Your task to perform on an android device: open chrome and create a bookmark for the current page Image 0: 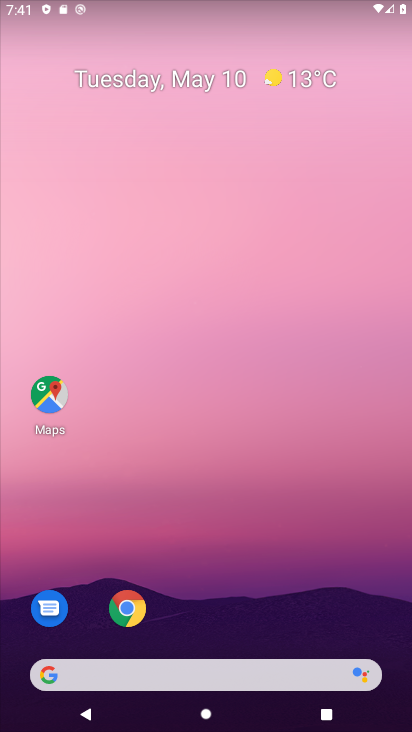
Step 0: press home button
Your task to perform on an android device: open chrome and create a bookmark for the current page Image 1: 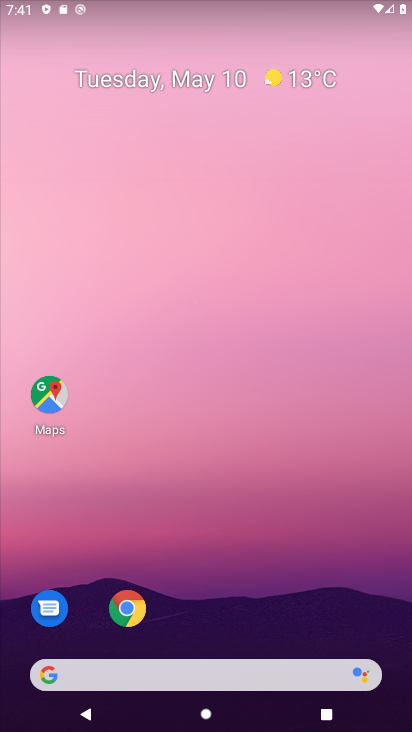
Step 1: click (122, 609)
Your task to perform on an android device: open chrome and create a bookmark for the current page Image 2: 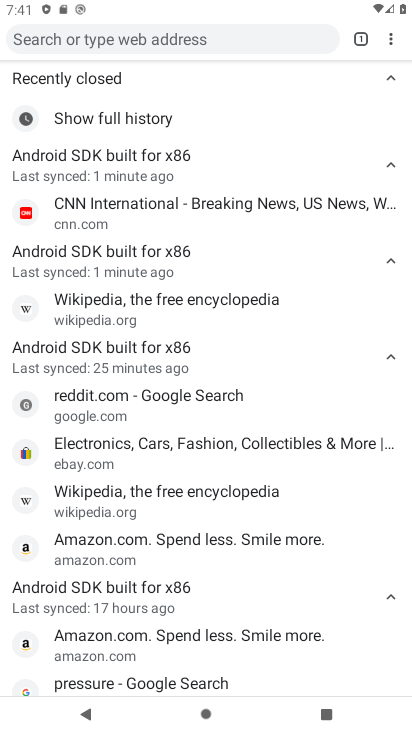
Step 2: click (384, 46)
Your task to perform on an android device: open chrome and create a bookmark for the current page Image 3: 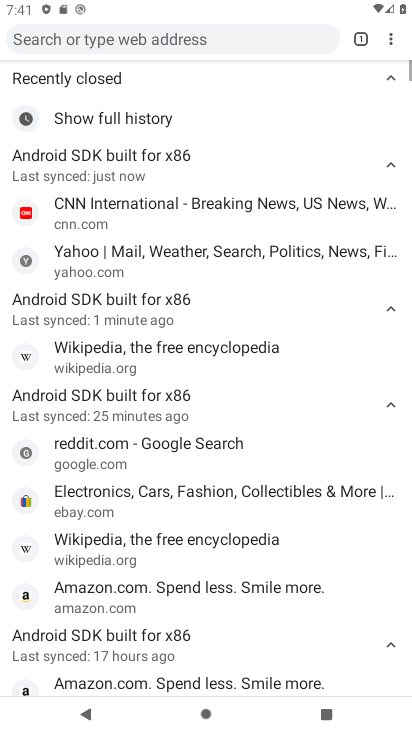
Step 3: click (389, 50)
Your task to perform on an android device: open chrome and create a bookmark for the current page Image 4: 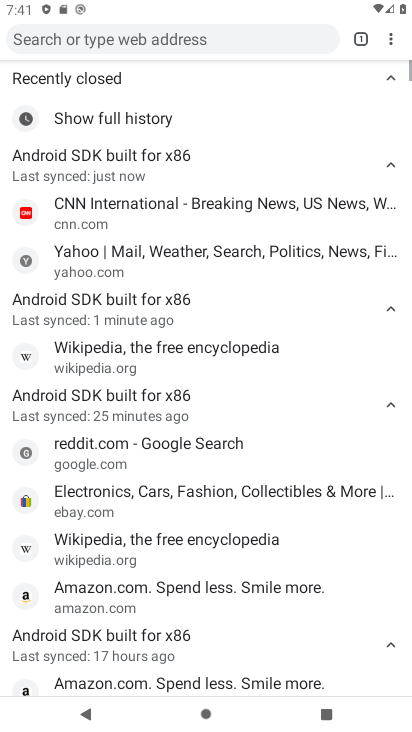
Step 4: click (389, 55)
Your task to perform on an android device: open chrome and create a bookmark for the current page Image 5: 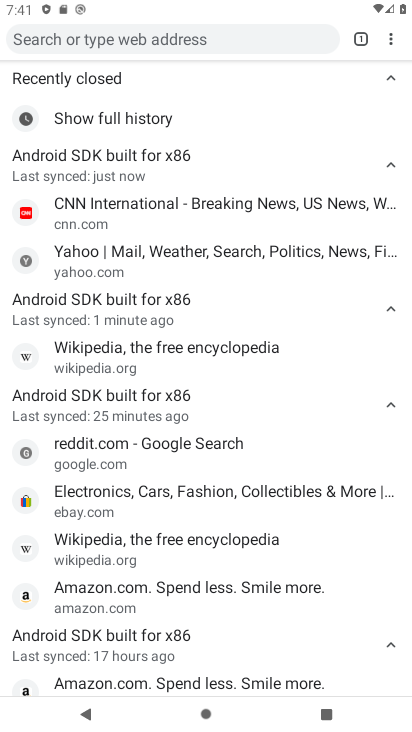
Step 5: click (391, 49)
Your task to perform on an android device: open chrome and create a bookmark for the current page Image 6: 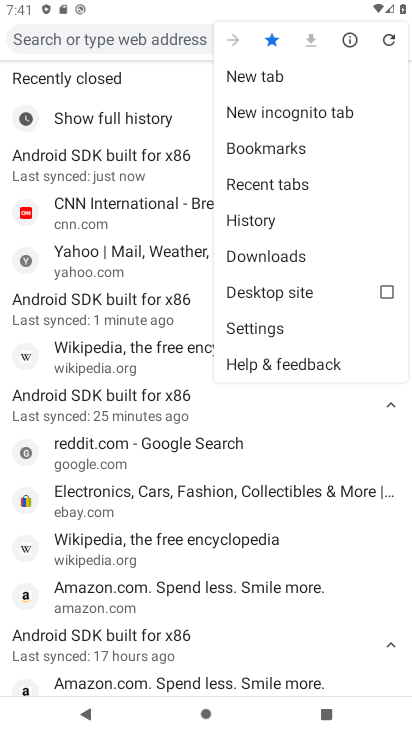
Step 6: task complete